Your task to perform on an android device: uninstall "DoorDash - Dasher" Image 0: 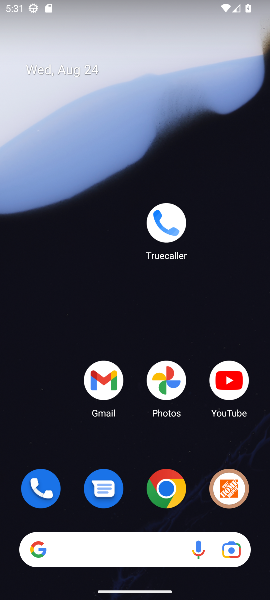
Step 0: drag from (145, 516) to (133, 47)
Your task to perform on an android device: uninstall "DoorDash - Dasher" Image 1: 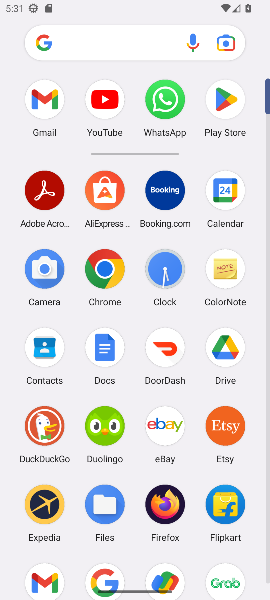
Step 1: click (230, 108)
Your task to perform on an android device: uninstall "DoorDash - Dasher" Image 2: 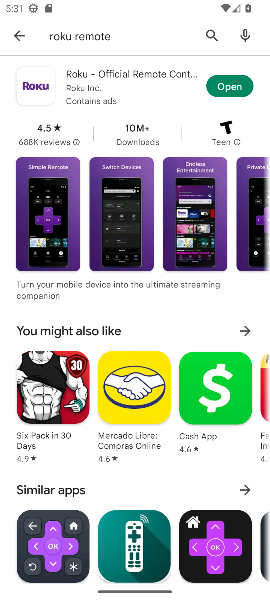
Step 2: click (214, 18)
Your task to perform on an android device: uninstall "DoorDash - Dasher" Image 3: 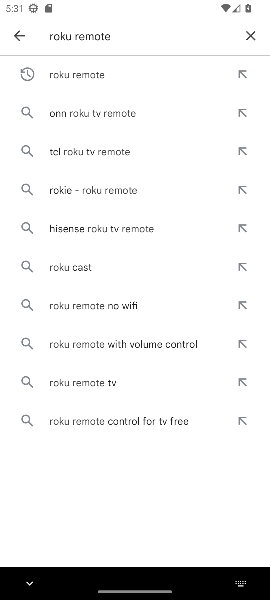
Step 3: click (248, 33)
Your task to perform on an android device: uninstall "DoorDash - Dasher" Image 4: 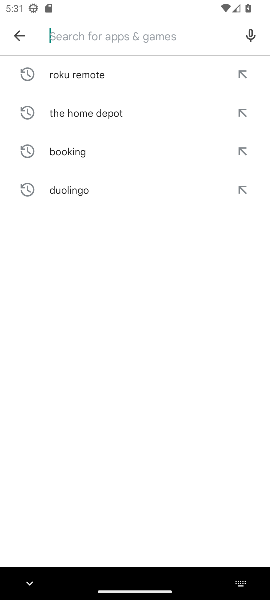
Step 4: type "doordah"
Your task to perform on an android device: uninstall "DoorDash - Dasher" Image 5: 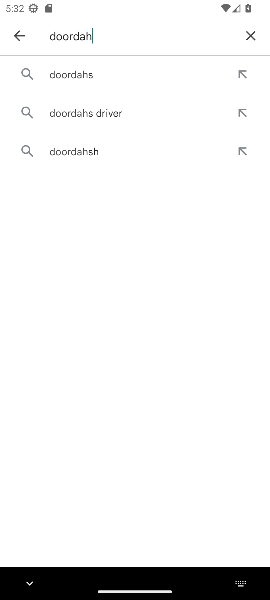
Step 5: click (136, 80)
Your task to perform on an android device: uninstall "DoorDash - Dasher" Image 6: 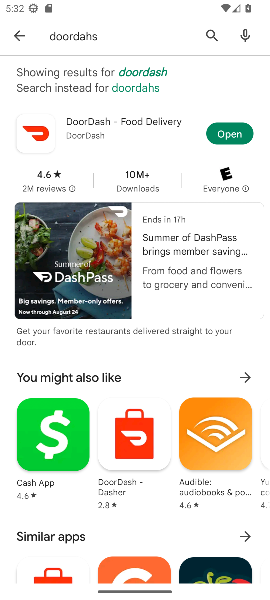
Step 6: click (211, 120)
Your task to perform on an android device: uninstall "DoorDash - Dasher" Image 7: 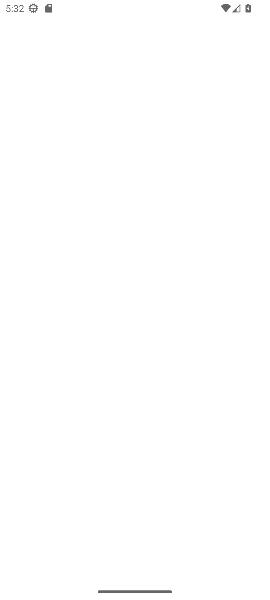
Step 7: task complete